Your task to perform on an android device: toggle wifi Image 0: 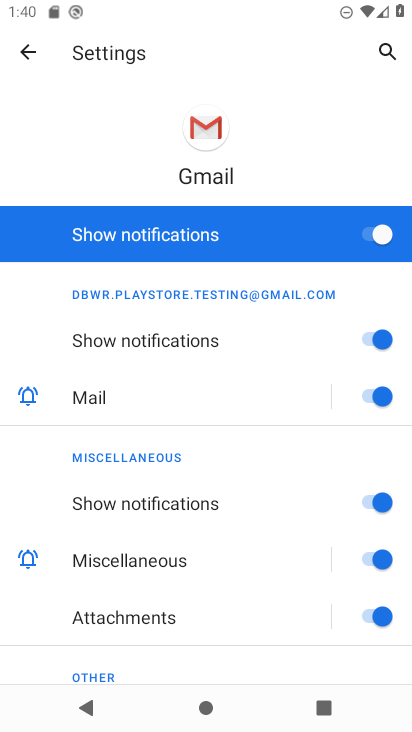
Step 0: press home button
Your task to perform on an android device: toggle wifi Image 1: 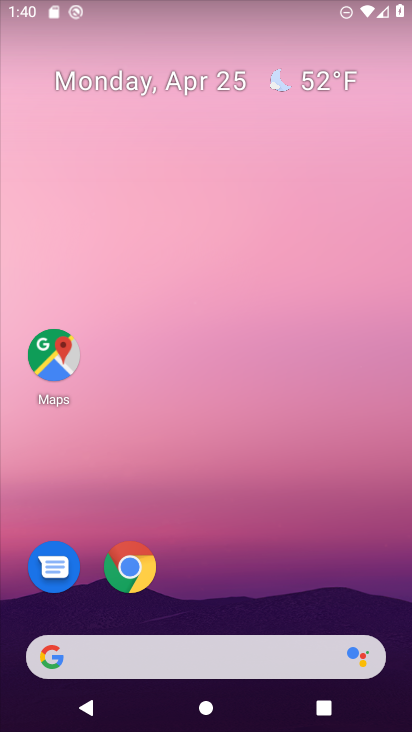
Step 1: drag from (227, 556) to (275, 0)
Your task to perform on an android device: toggle wifi Image 2: 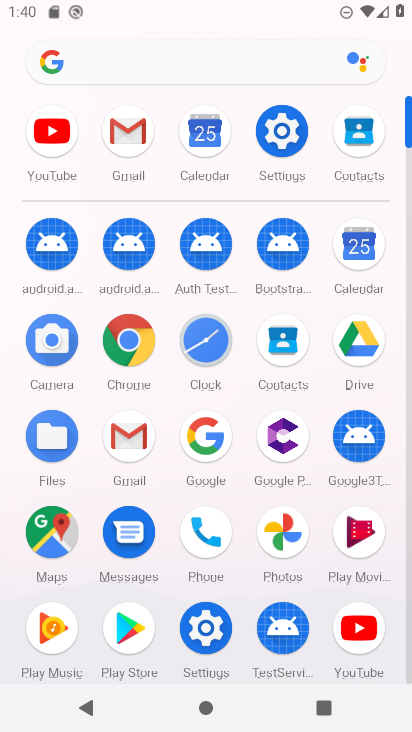
Step 2: click (290, 130)
Your task to perform on an android device: toggle wifi Image 3: 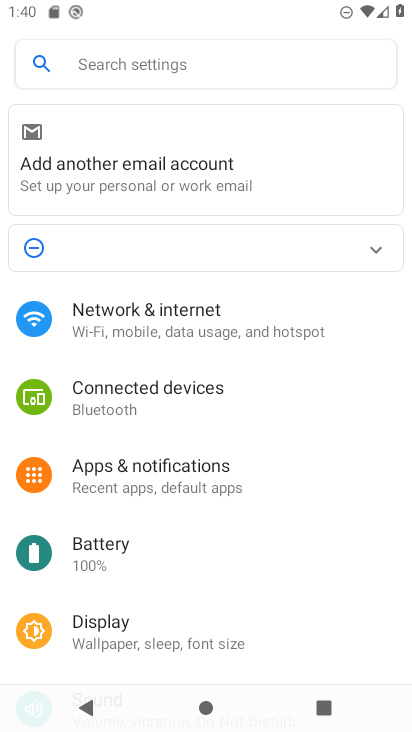
Step 3: click (228, 317)
Your task to perform on an android device: toggle wifi Image 4: 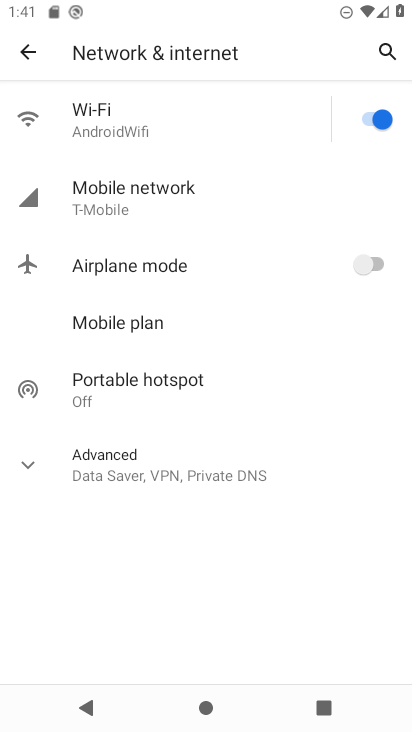
Step 4: click (357, 116)
Your task to perform on an android device: toggle wifi Image 5: 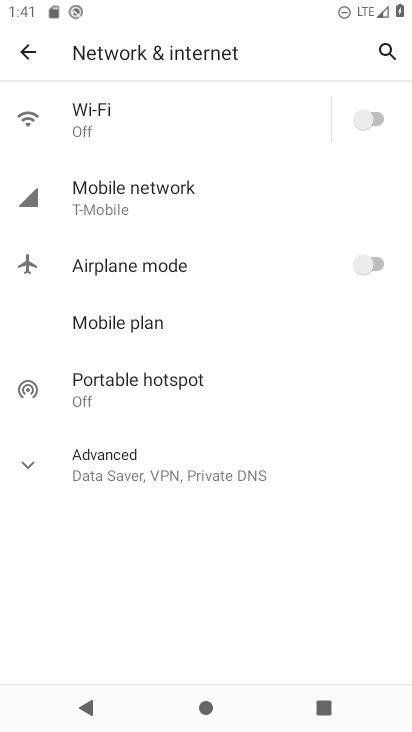
Step 5: task complete